Your task to perform on an android device: see tabs open on other devices in the chrome app Image 0: 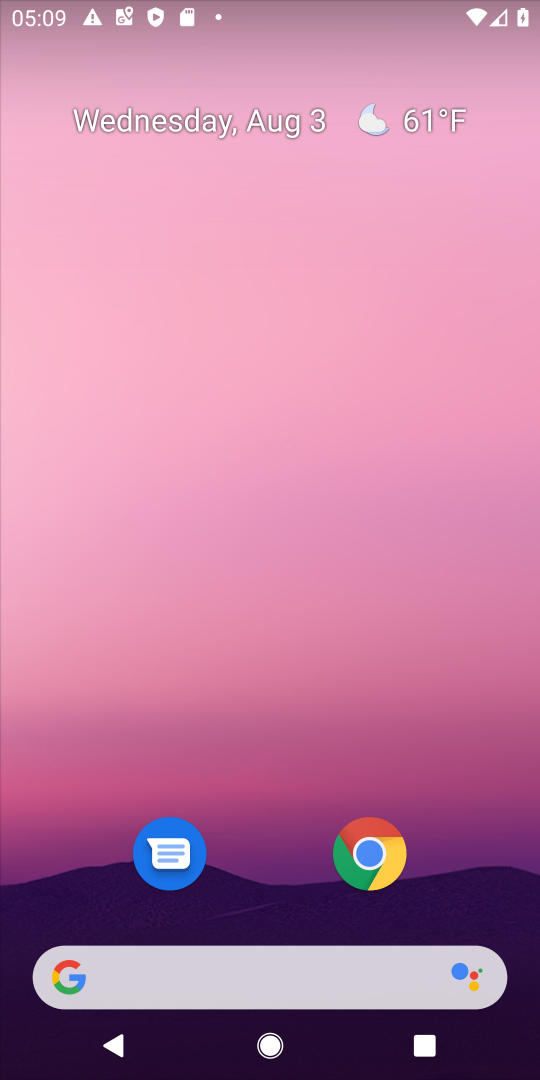
Step 0: click (365, 867)
Your task to perform on an android device: see tabs open on other devices in the chrome app Image 1: 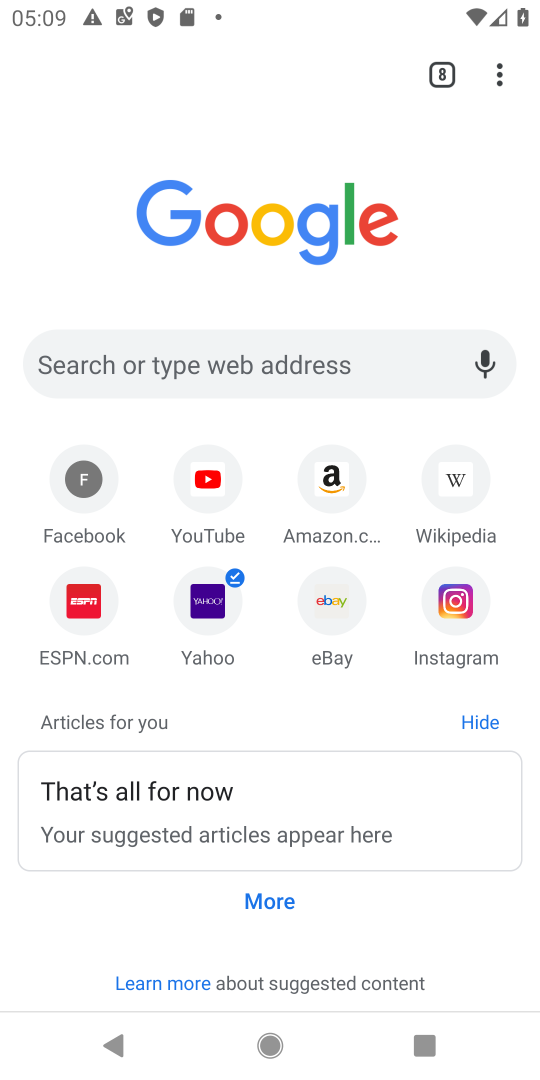
Step 1: click (500, 82)
Your task to perform on an android device: see tabs open on other devices in the chrome app Image 2: 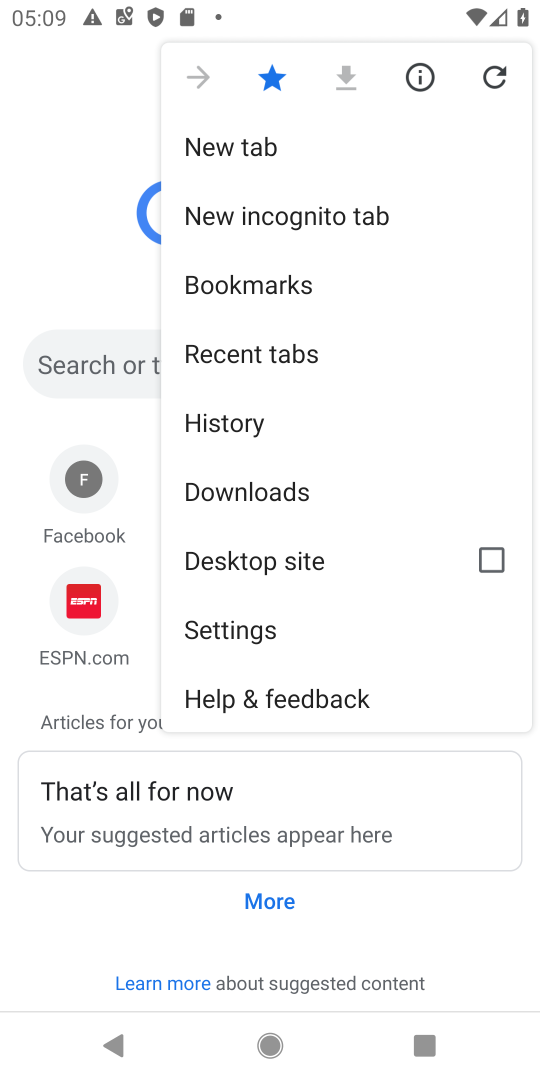
Step 2: click (224, 348)
Your task to perform on an android device: see tabs open on other devices in the chrome app Image 3: 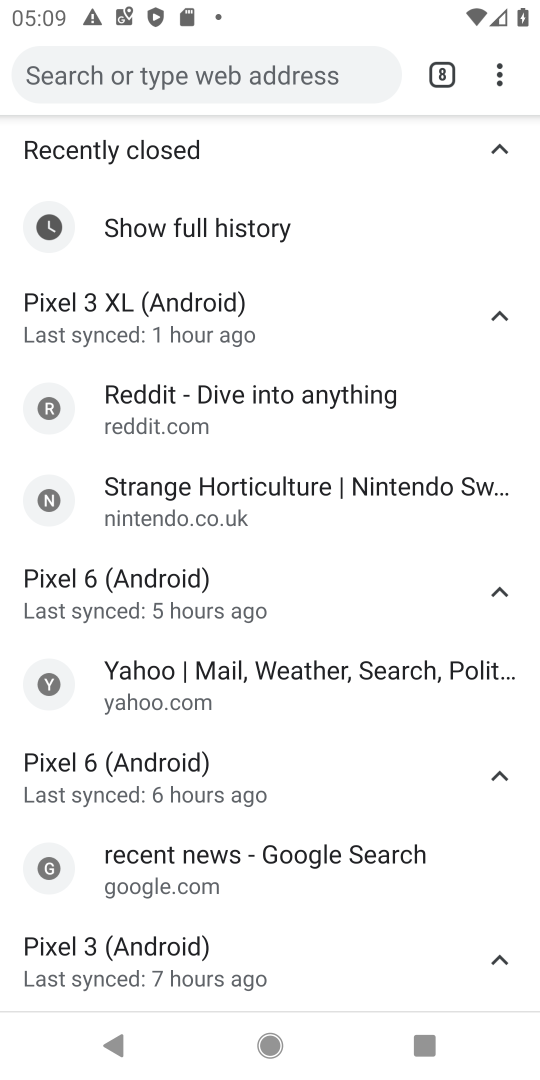
Step 3: task complete